Your task to perform on an android device: Open the calendar app, open the side menu, and click the "Day" option Image 0: 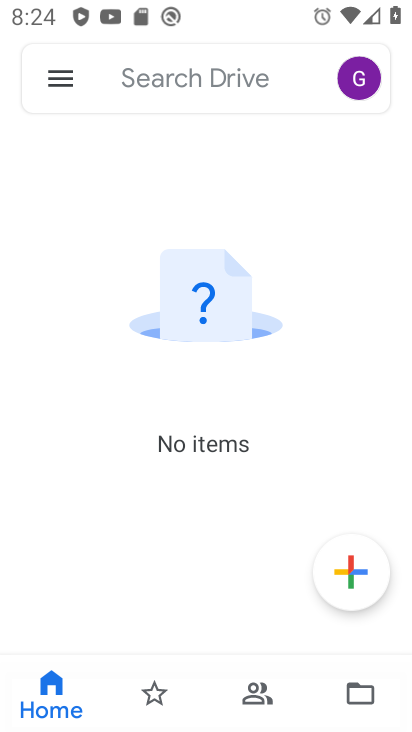
Step 0: press home button
Your task to perform on an android device: Open the calendar app, open the side menu, and click the "Day" option Image 1: 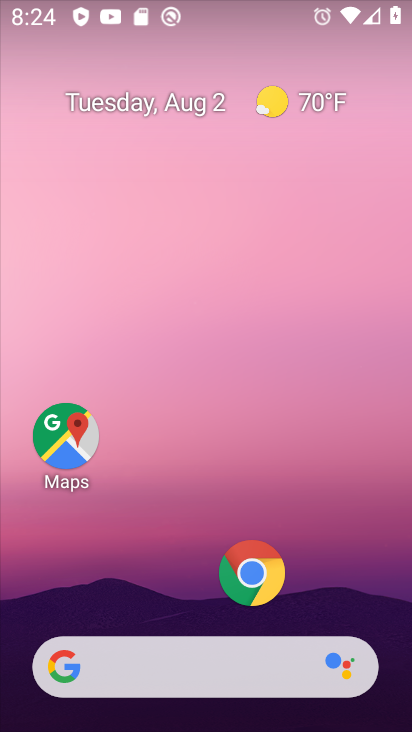
Step 1: drag from (180, 606) to (206, 23)
Your task to perform on an android device: Open the calendar app, open the side menu, and click the "Day" option Image 2: 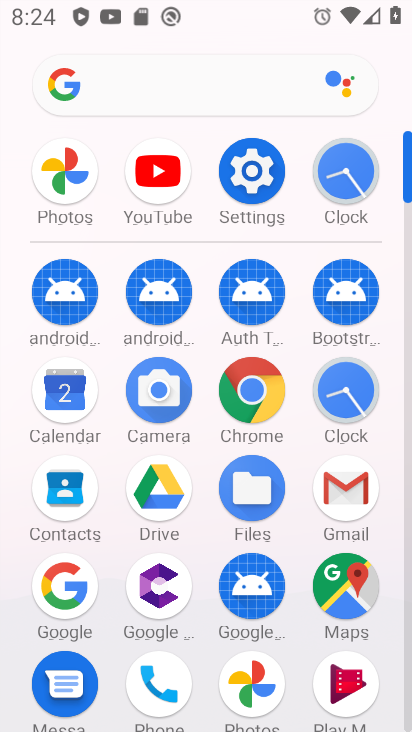
Step 2: click (59, 382)
Your task to perform on an android device: Open the calendar app, open the side menu, and click the "Day" option Image 3: 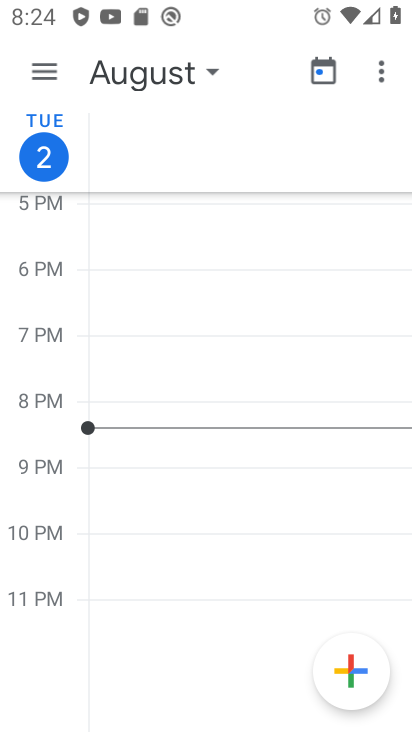
Step 3: click (43, 61)
Your task to perform on an android device: Open the calendar app, open the side menu, and click the "Day" option Image 4: 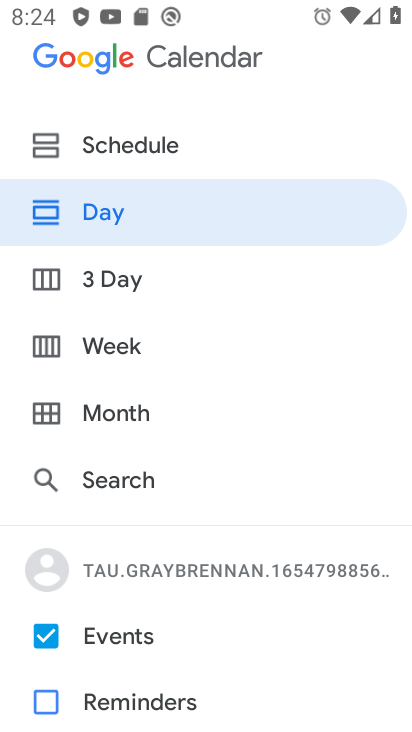
Step 4: click (109, 219)
Your task to perform on an android device: Open the calendar app, open the side menu, and click the "Day" option Image 5: 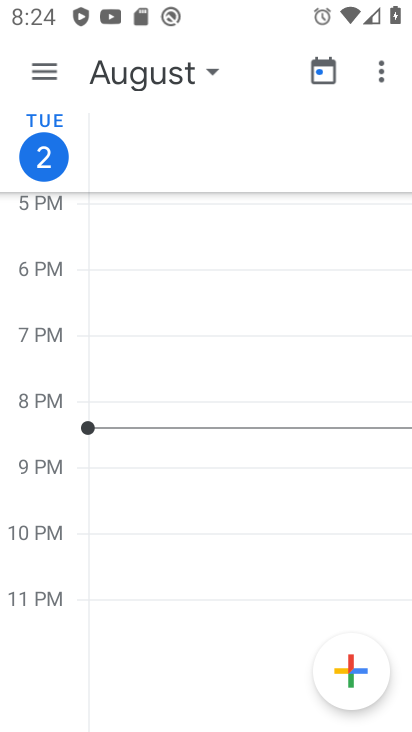
Step 5: task complete